Your task to perform on an android device: Open CNN.com Image 0: 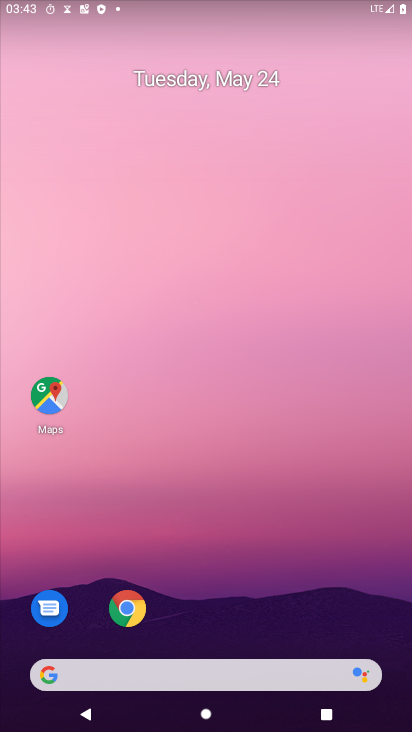
Step 0: drag from (241, 621) to (265, 252)
Your task to perform on an android device: Open CNN.com Image 1: 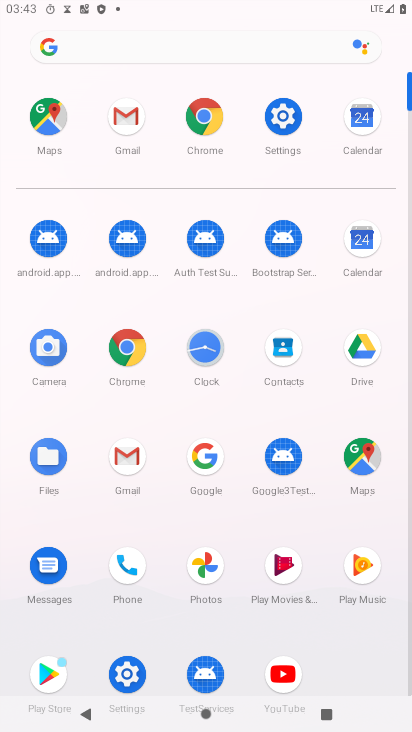
Step 1: click (208, 130)
Your task to perform on an android device: Open CNN.com Image 2: 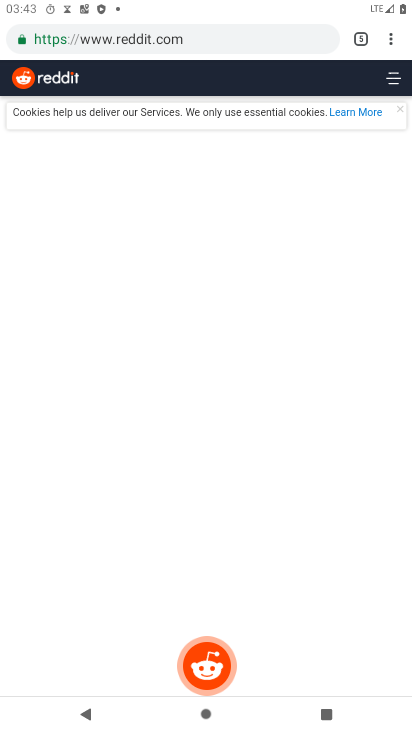
Step 2: click (198, 49)
Your task to perform on an android device: Open CNN.com Image 3: 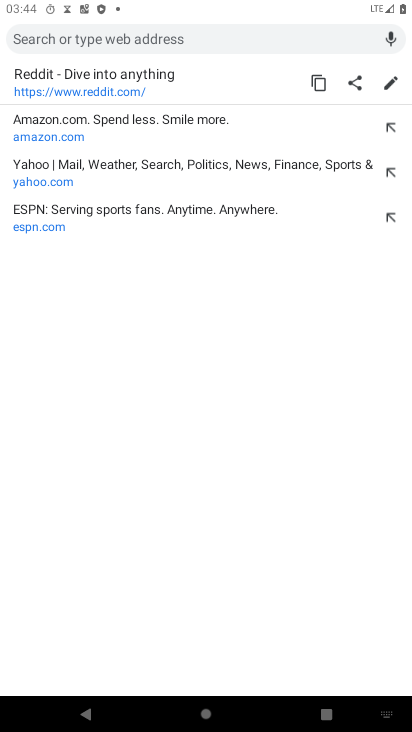
Step 3: type "cnn.com"
Your task to perform on an android device: Open CNN.com Image 4: 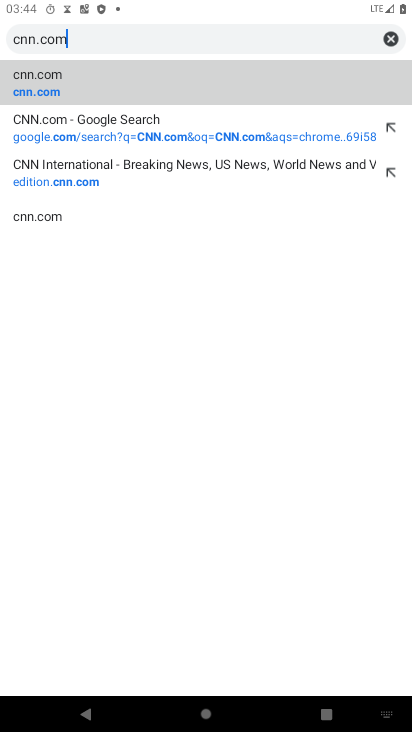
Step 4: click (46, 88)
Your task to perform on an android device: Open CNN.com Image 5: 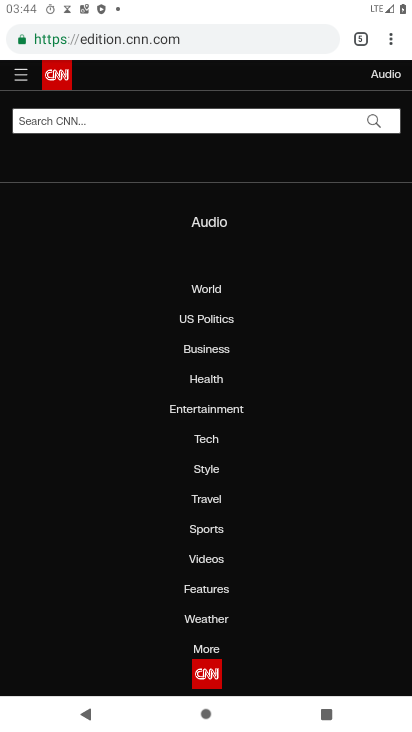
Step 5: task complete